Your task to perform on an android device: open a bookmark in the chrome app Image 0: 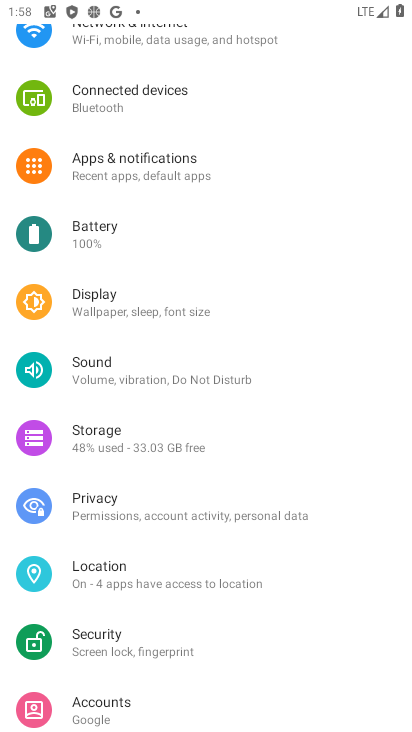
Step 0: press home button
Your task to perform on an android device: open a bookmark in the chrome app Image 1: 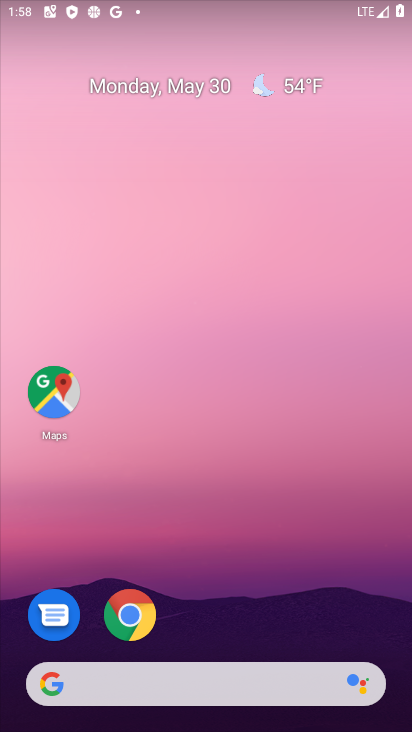
Step 1: click (144, 614)
Your task to perform on an android device: open a bookmark in the chrome app Image 2: 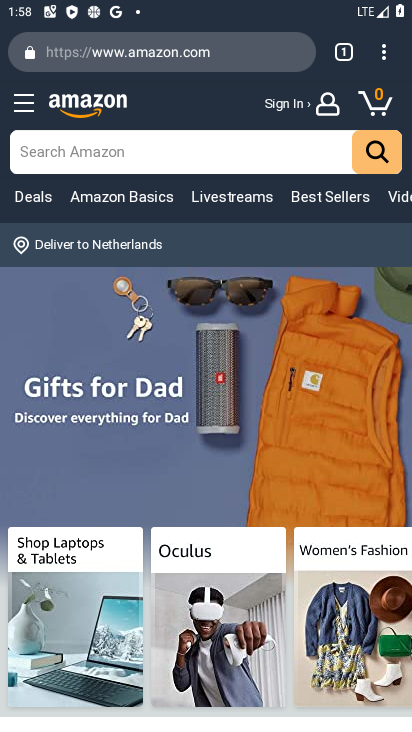
Step 2: click (384, 57)
Your task to perform on an android device: open a bookmark in the chrome app Image 3: 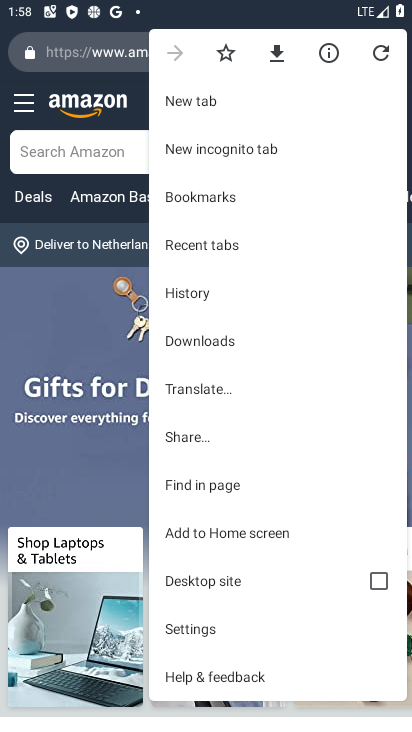
Step 3: click (236, 631)
Your task to perform on an android device: open a bookmark in the chrome app Image 4: 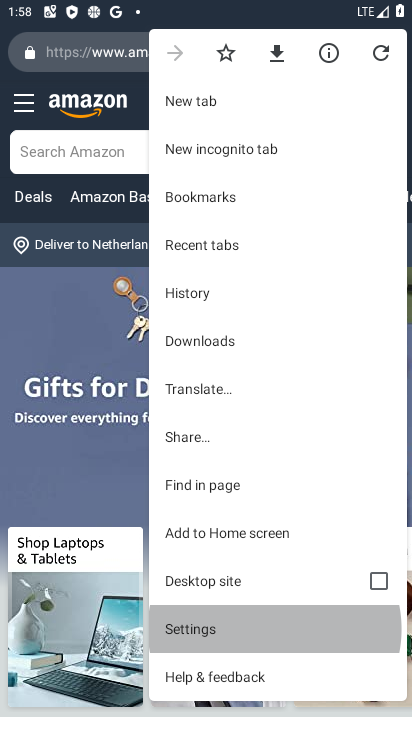
Step 4: drag from (236, 631) to (269, 251)
Your task to perform on an android device: open a bookmark in the chrome app Image 5: 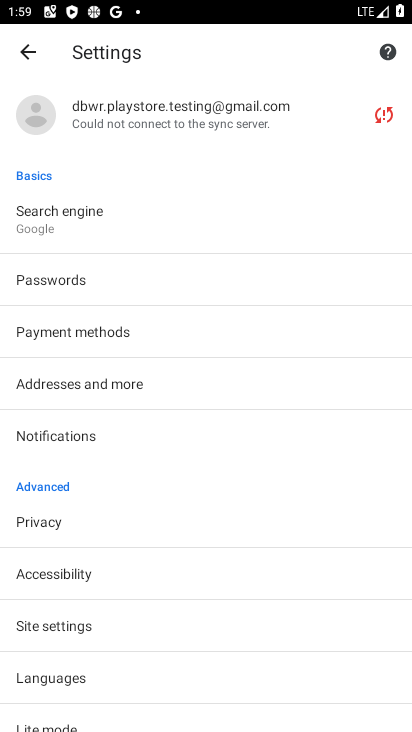
Step 5: click (32, 48)
Your task to perform on an android device: open a bookmark in the chrome app Image 6: 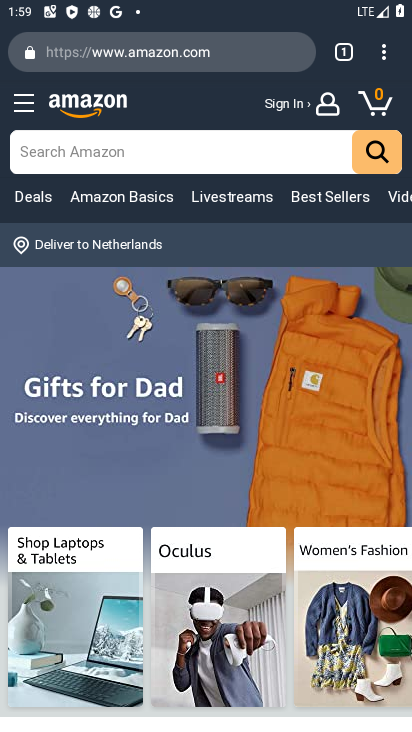
Step 6: click (391, 62)
Your task to perform on an android device: open a bookmark in the chrome app Image 7: 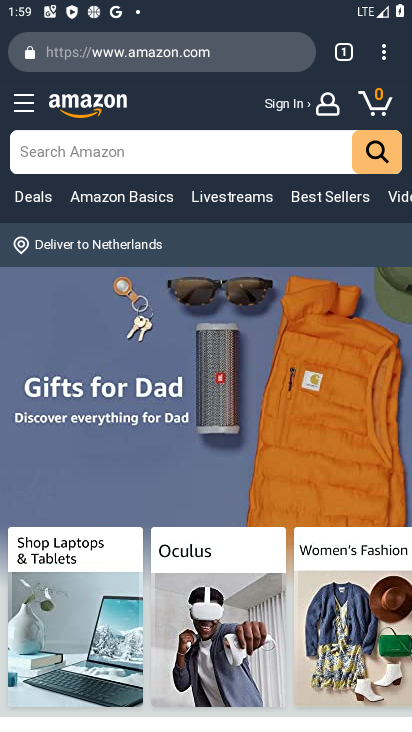
Step 7: click (389, 38)
Your task to perform on an android device: open a bookmark in the chrome app Image 8: 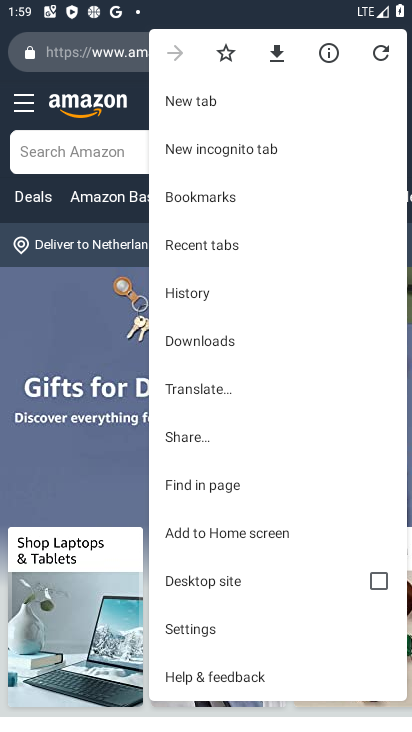
Step 8: drag from (275, 558) to (239, 299)
Your task to perform on an android device: open a bookmark in the chrome app Image 9: 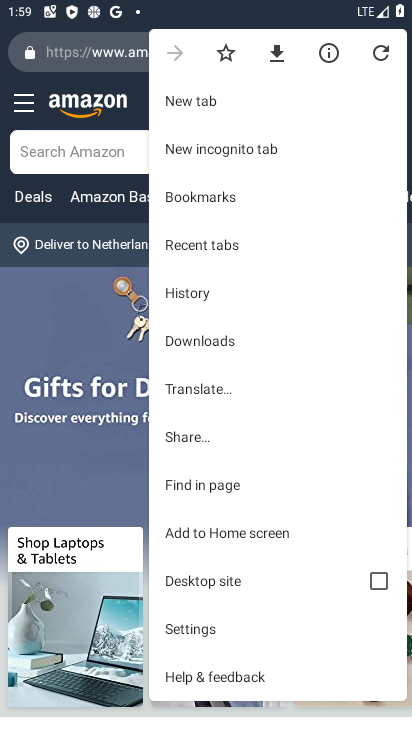
Step 9: click (203, 201)
Your task to perform on an android device: open a bookmark in the chrome app Image 10: 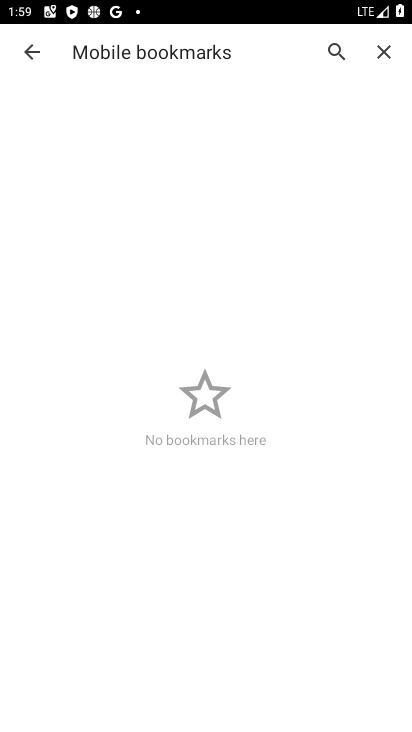
Step 10: task complete